Your task to perform on an android device: Open the calendar and show me this week's events Image 0: 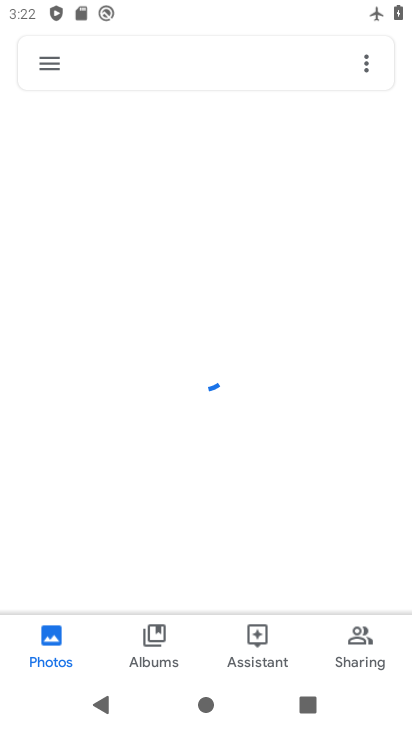
Step 0: press home button
Your task to perform on an android device: Open the calendar and show me this week's events Image 1: 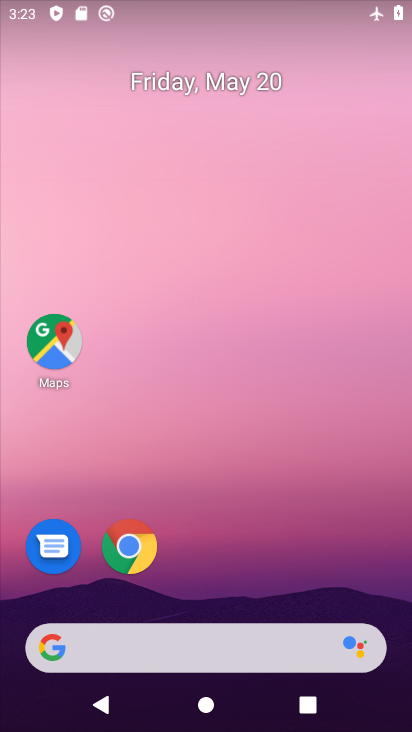
Step 1: drag from (214, 576) to (230, 94)
Your task to perform on an android device: Open the calendar and show me this week's events Image 2: 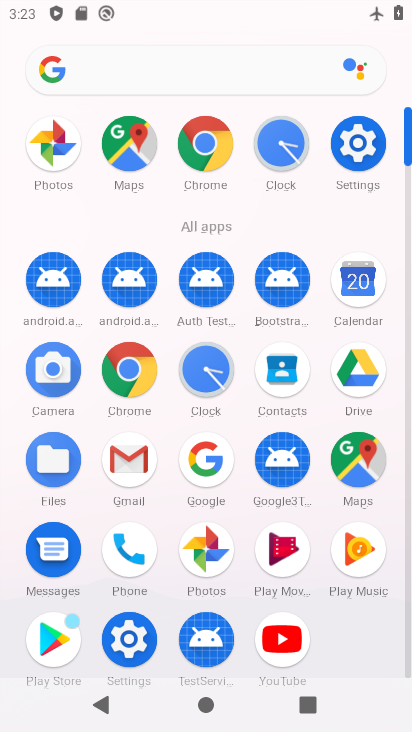
Step 2: click (347, 281)
Your task to perform on an android device: Open the calendar and show me this week's events Image 3: 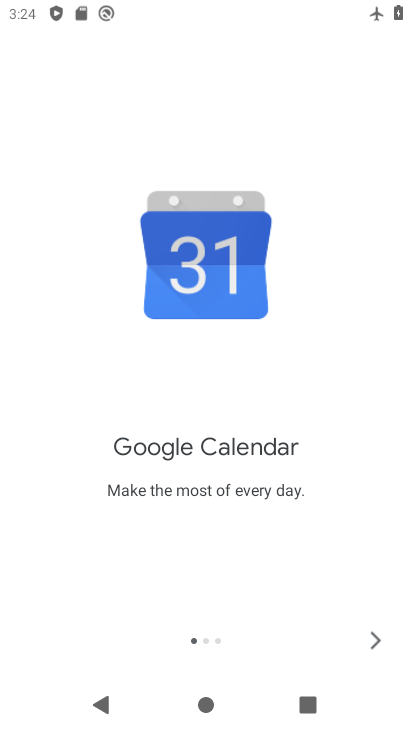
Step 3: click (360, 630)
Your task to perform on an android device: Open the calendar and show me this week's events Image 4: 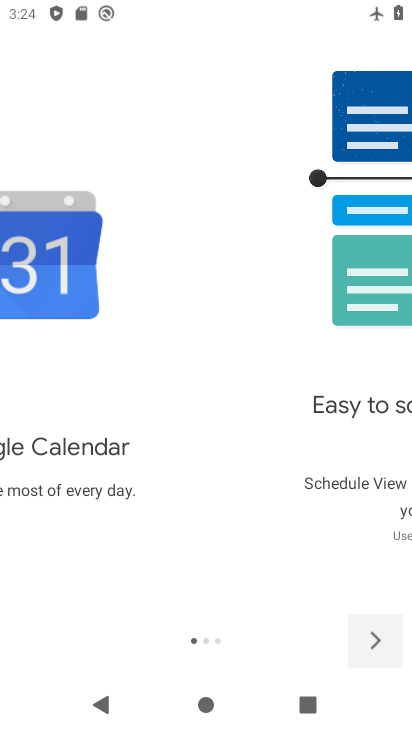
Step 4: click (360, 630)
Your task to perform on an android device: Open the calendar and show me this week's events Image 5: 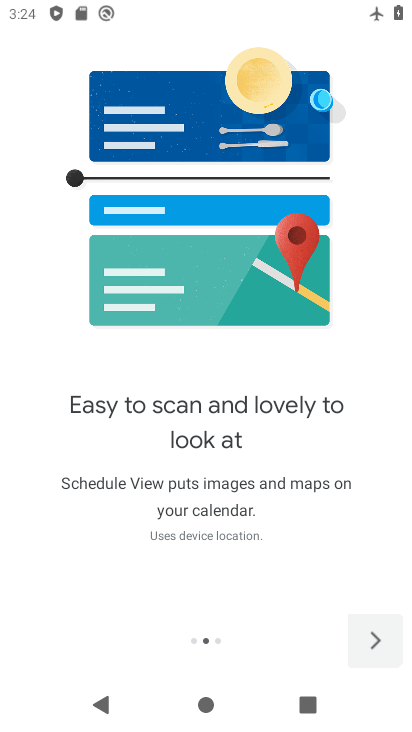
Step 5: click (360, 630)
Your task to perform on an android device: Open the calendar and show me this week's events Image 6: 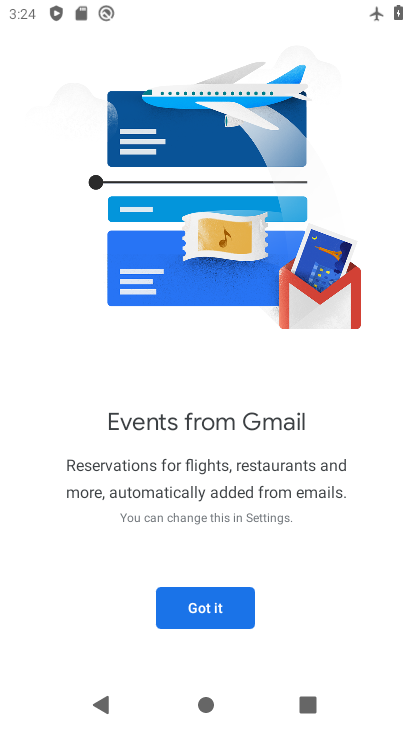
Step 6: click (360, 630)
Your task to perform on an android device: Open the calendar and show me this week's events Image 7: 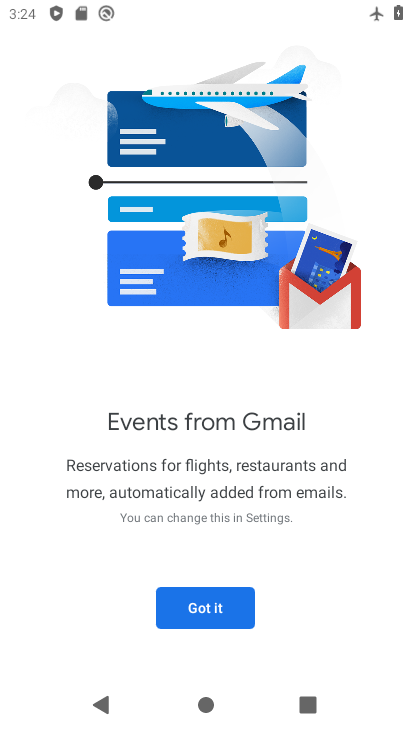
Step 7: click (216, 616)
Your task to perform on an android device: Open the calendar and show me this week's events Image 8: 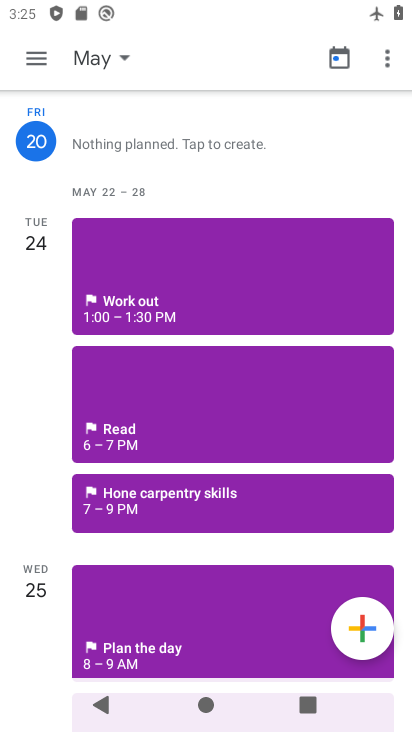
Step 8: click (98, 66)
Your task to perform on an android device: Open the calendar and show me this week's events Image 9: 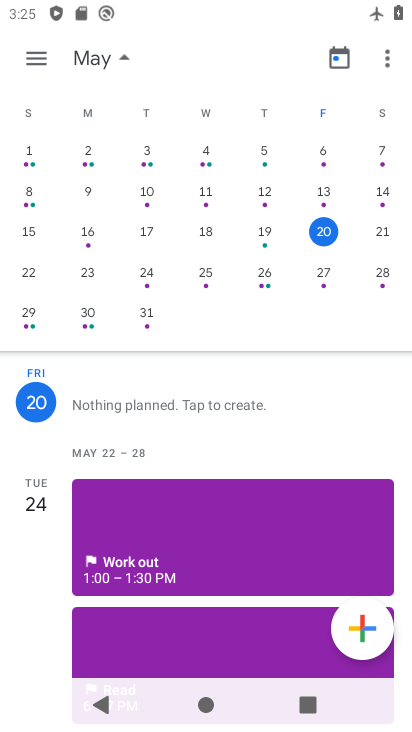
Step 9: click (28, 61)
Your task to perform on an android device: Open the calendar and show me this week's events Image 10: 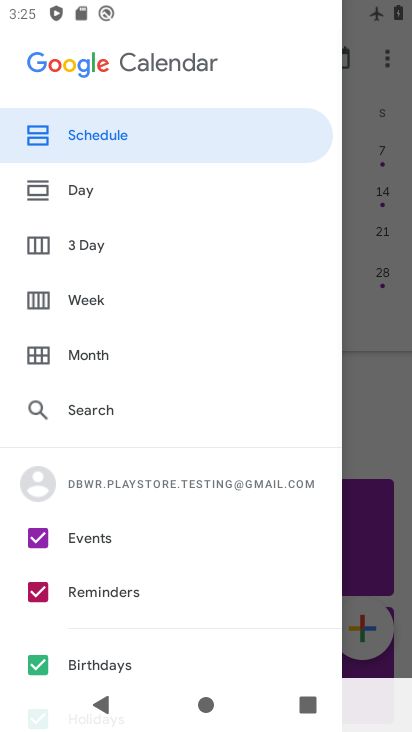
Step 10: click (96, 299)
Your task to perform on an android device: Open the calendar and show me this week's events Image 11: 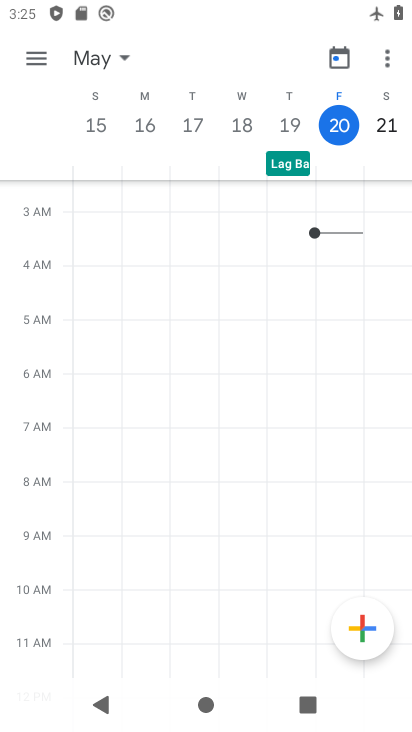
Step 11: task complete